Your task to perform on an android device: Show me popular videos on Youtube Image 0: 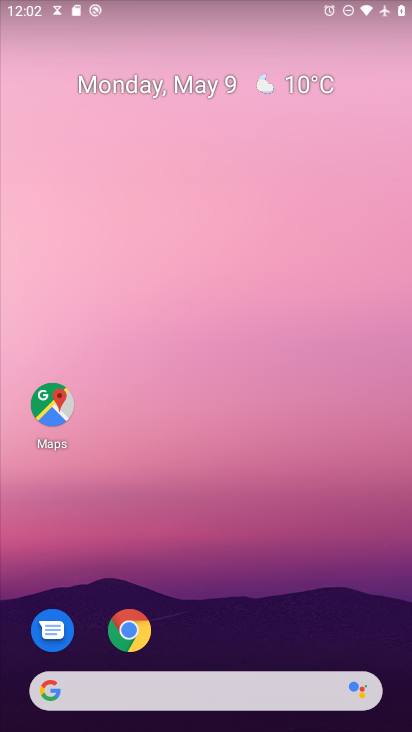
Step 0: drag from (227, 688) to (345, 123)
Your task to perform on an android device: Show me popular videos on Youtube Image 1: 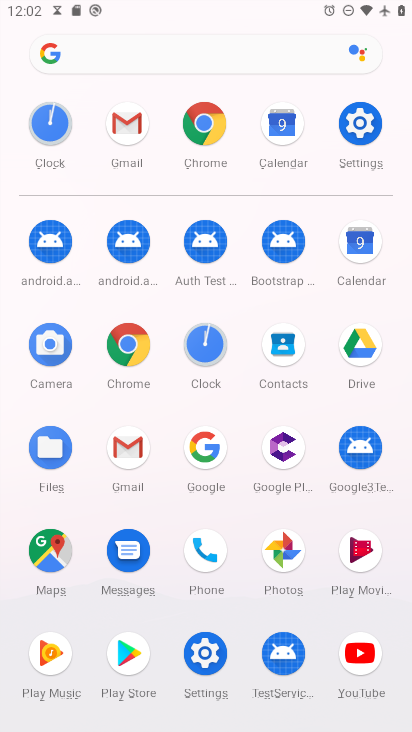
Step 1: click (357, 657)
Your task to perform on an android device: Show me popular videos on Youtube Image 2: 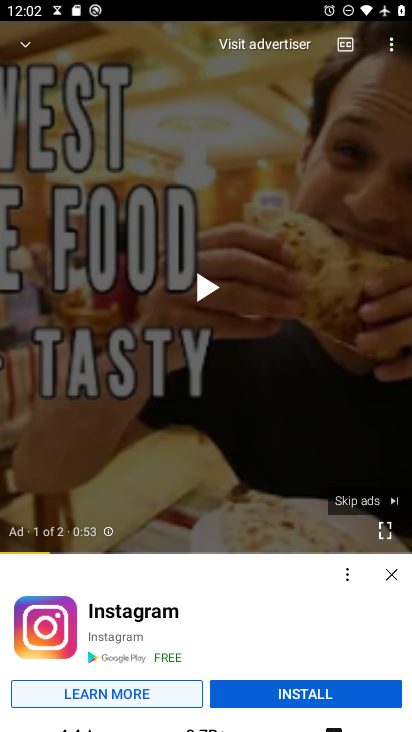
Step 2: press back button
Your task to perform on an android device: Show me popular videos on Youtube Image 3: 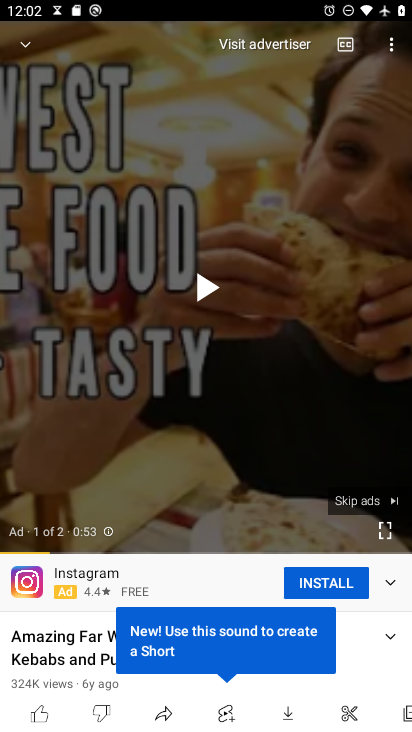
Step 3: press back button
Your task to perform on an android device: Show me popular videos on Youtube Image 4: 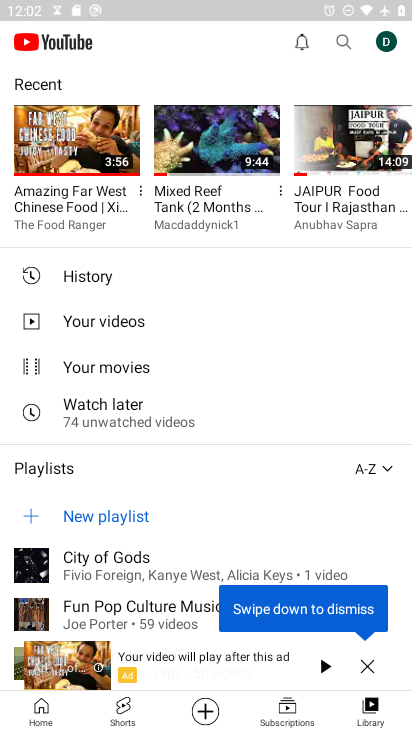
Step 4: click (35, 710)
Your task to perform on an android device: Show me popular videos on Youtube Image 5: 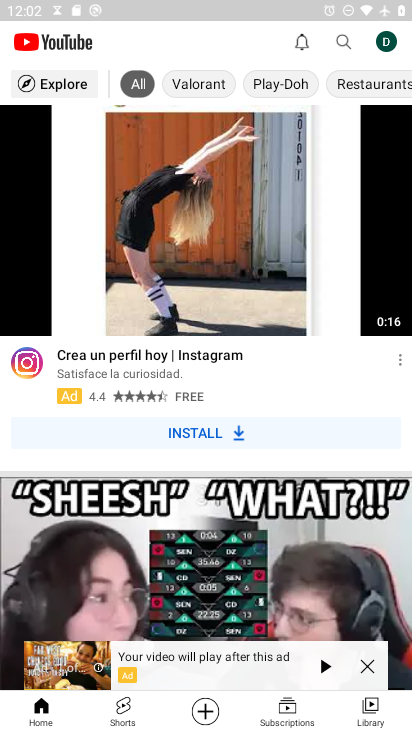
Step 5: task complete